Your task to perform on an android device: Go to battery settings Image 0: 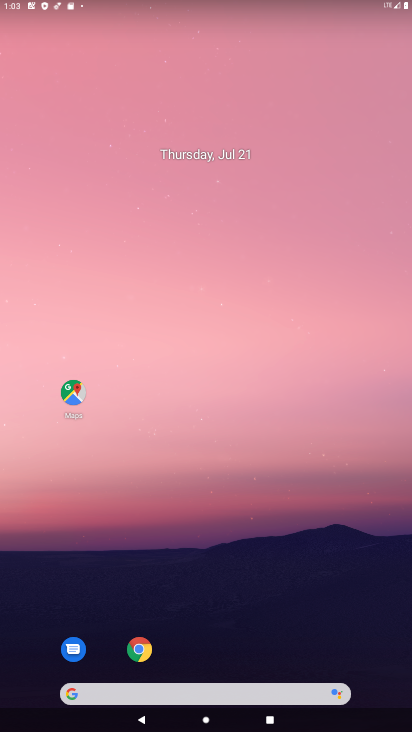
Step 0: drag from (229, 726) to (217, 130)
Your task to perform on an android device: Go to battery settings Image 1: 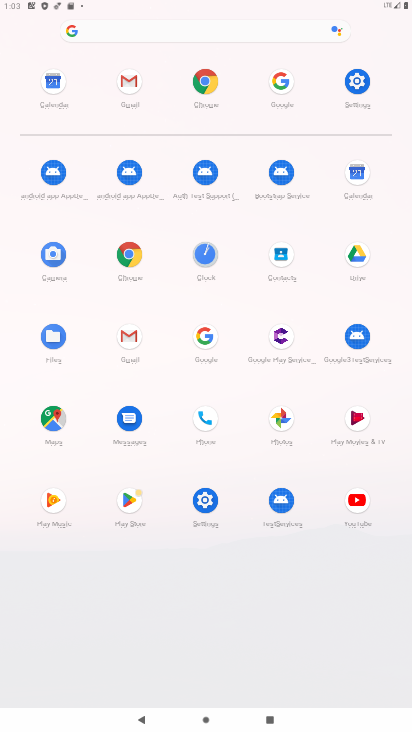
Step 1: click (357, 75)
Your task to perform on an android device: Go to battery settings Image 2: 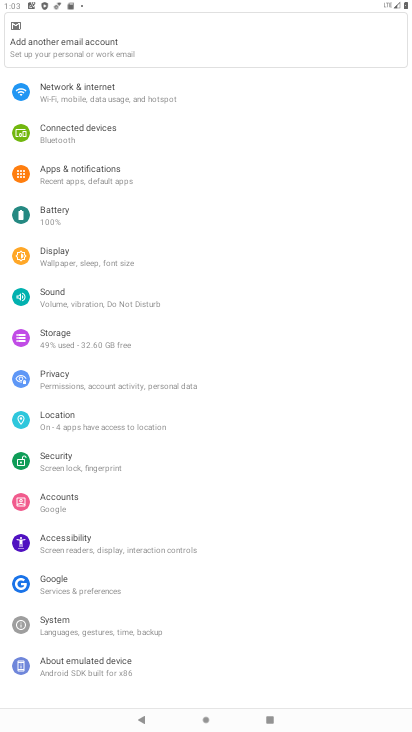
Step 2: click (48, 212)
Your task to perform on an android device: Go to battery settings Image 3: 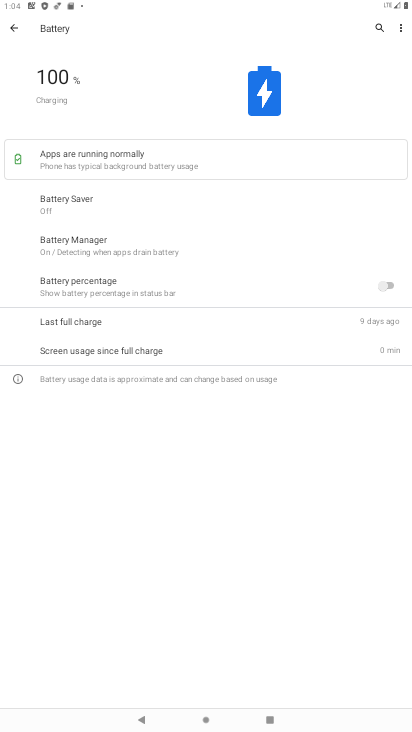
Step 3: task complete